Your task to perform on an android device: Play the last video I watched on Youtube Image 0: 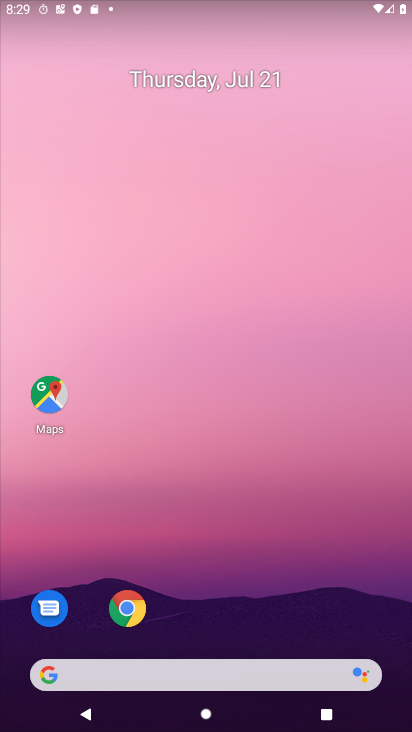
Step 0: press home button
Your task to perform on an android device: Play the last video I watched on Youtube Image 1: 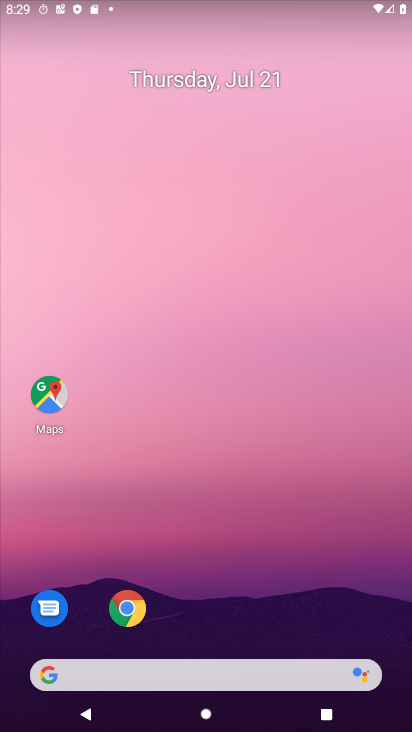
Step 1: drag from (260, 641) to (313, 155)
Your task to perform on an android device: Play the last video I watched on Youtube Image 2: 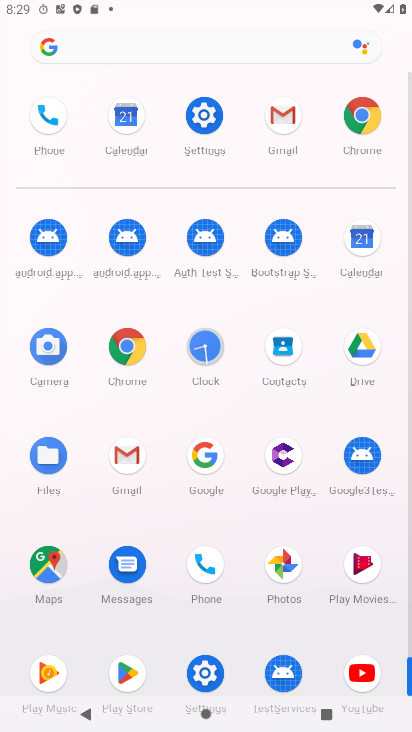
Step 2: click (147, 473)
Your task to perform on an android device: Play the last video I watched on Youtube Image 3: 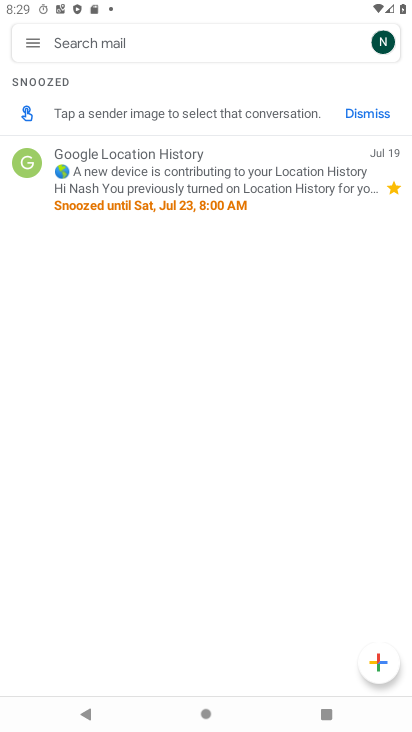
Step 3: click (31, 54)
Your task to perform on an android device: Play the last video I watched on Youtube Image 4: 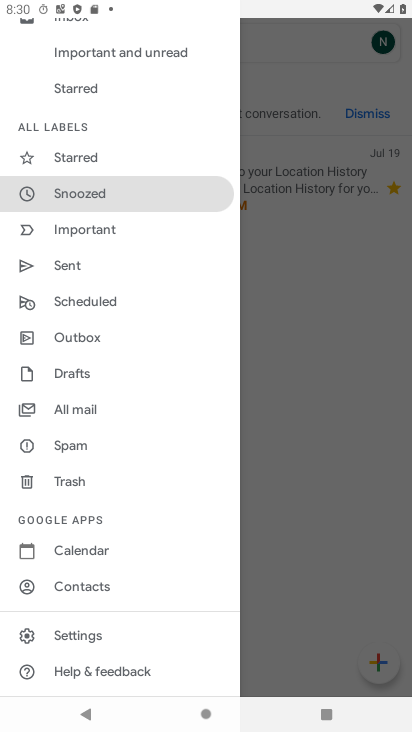
Step 4: press home button
Your task to perform on an android device: Play the last video I watched on Youtube Image 5: 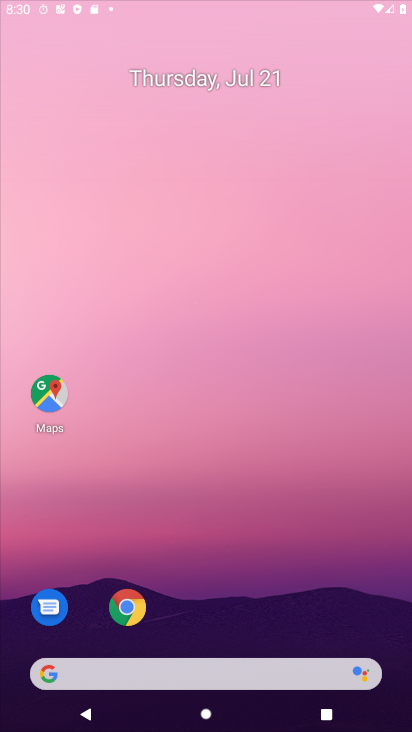
Step 5: drag from (313, 643) to (354, 119)
Your task to perform on an android device: Play the last video I watched on Youtube Image 6: 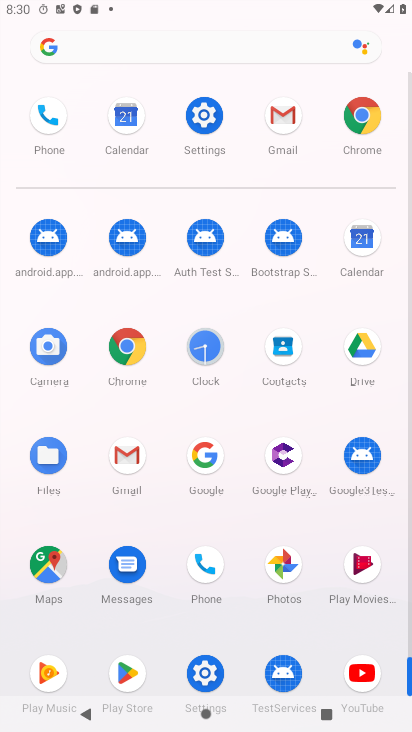
Step 6: click (359, 679)
Your task to perform on an android device: Play the last video I watched on Youtube Image 7: 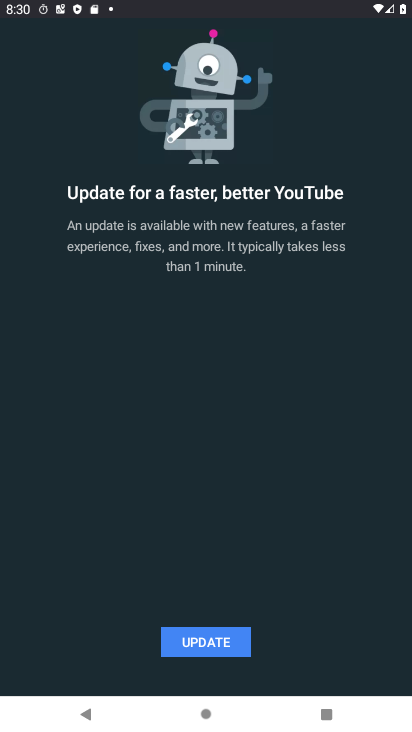
Step 7: click (222, 656)
Your task to perform on an android device: Play the last video I watched on Youtube Image 8: 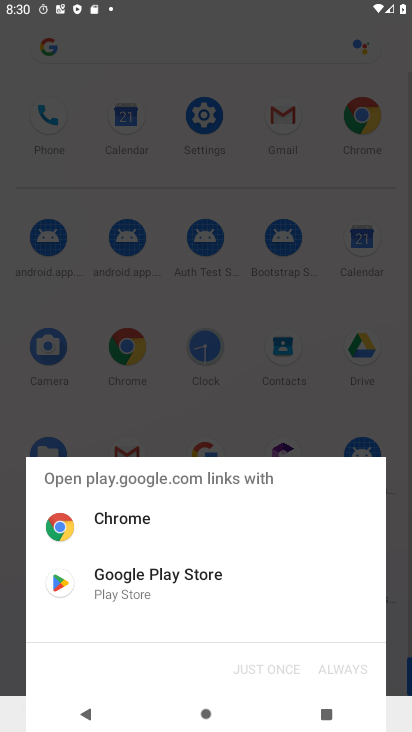
Step 8: click (204, 591)
Your task to perform on an android device: Play the last video I watched on Youtube Image 9: 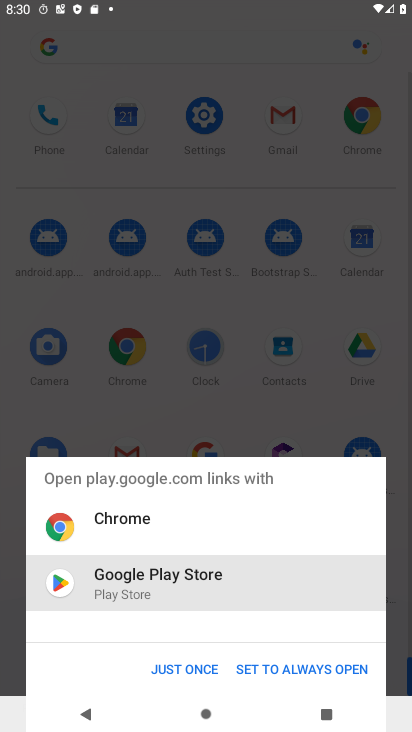
Step 9: click (182, 682)
Your task to perform on an android device: Play the last video I watched on Youtube Image 10: 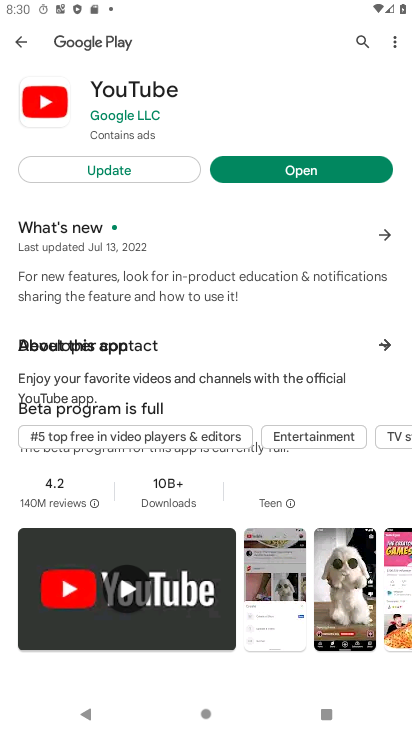
Step 10: click (77, 176)
Your task to perform on an android device: Play the last video I watched on Youtube Image 11: 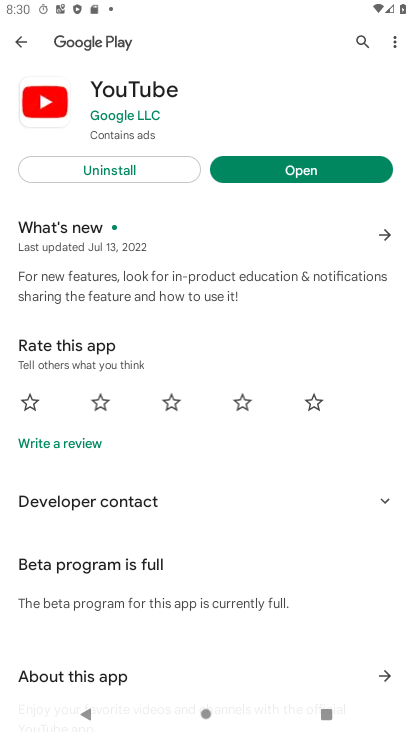
Step 11: click (246, 159)
Your task to perform on an android device: Play the last video I watched on Youtube Image 12: 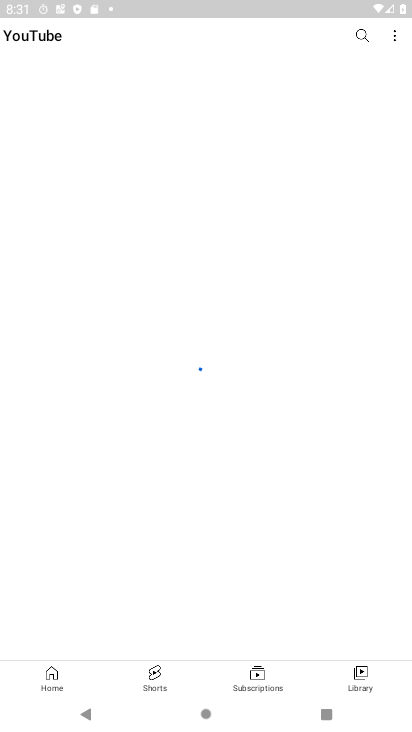
Step 12: click (349, 676)
Your task to perform on an android device: Play the last video I watched on Youtube Image 13: 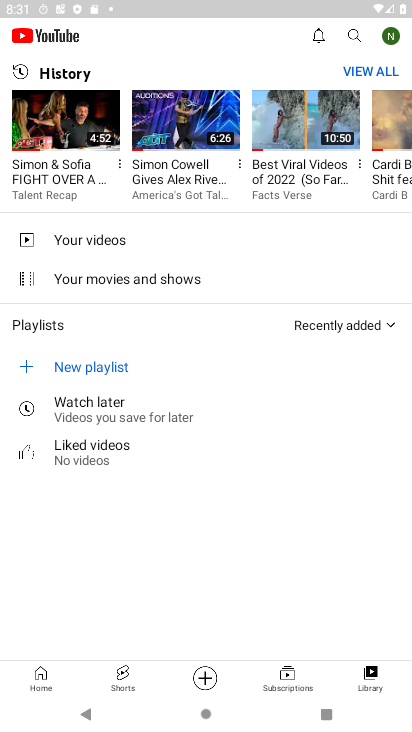
Step 13: click (23, 171)
Your task to perform on an android device: Play the last video I watched on Youtube Image 14: 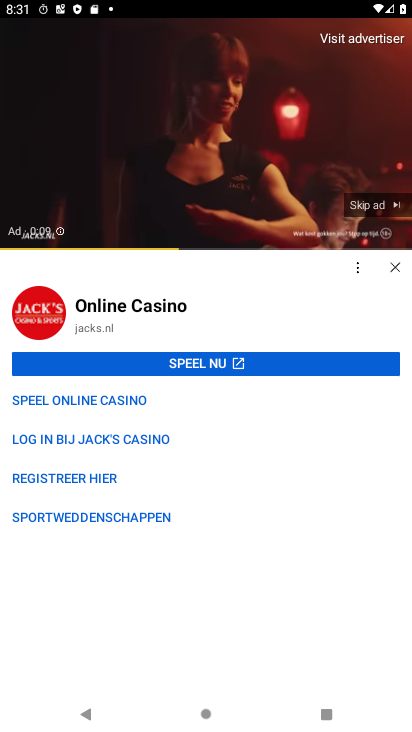
Step 14: click (390, 209)
Your task to perform on an android device: Play the last video I watched on Youtube Image 15: 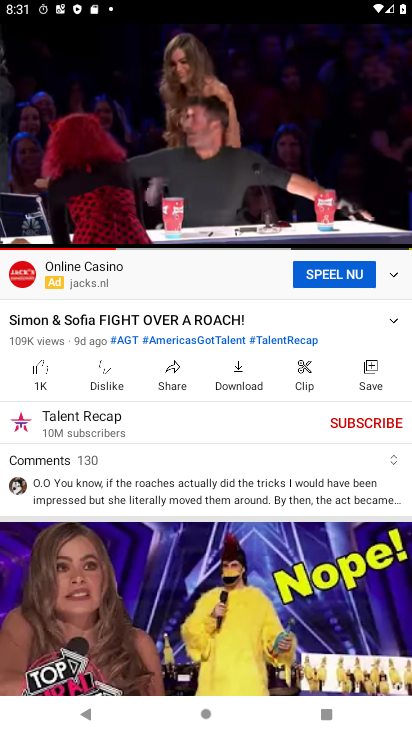
Step 15: task complete